Your task to perform on an android device: turn off data saver in the chrome app Image 0: 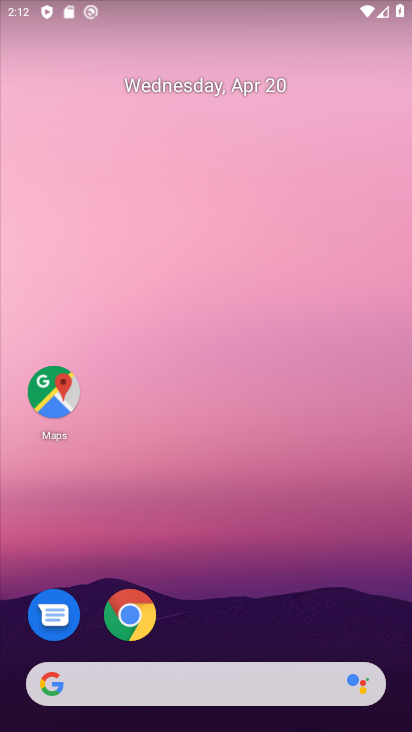
Step 0: click (126, 625)
Your task to perform on an android device: turn off data saver in the chrome app Image 1: 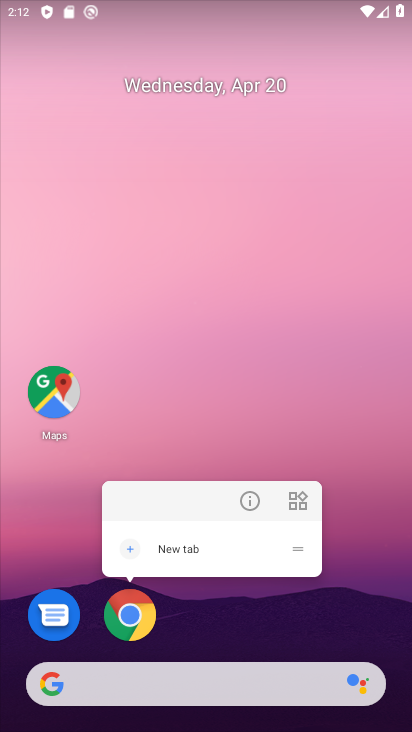
Step 1: click (127, 624)
Your task to perform on an android device: turn off data saver in the chrome app Image 2: 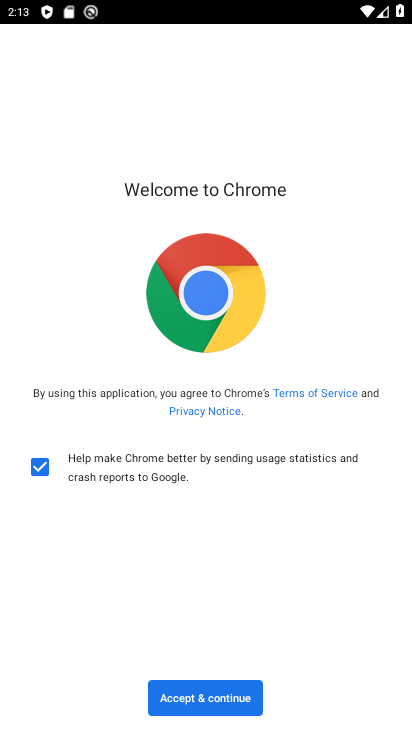
Step 2: click (208, 696)
Your task to perform on an android device: turn off data saver in the chrome app Image 3: 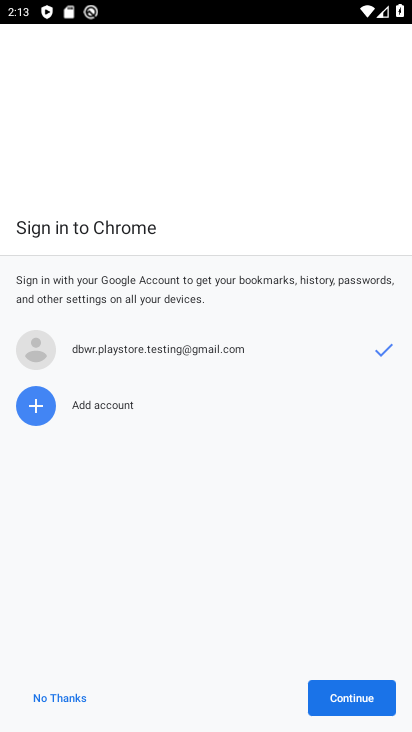
Step 3: click (400, 704)
Your task to perform on an android device: turn off data saver in the chrome app Image 4: 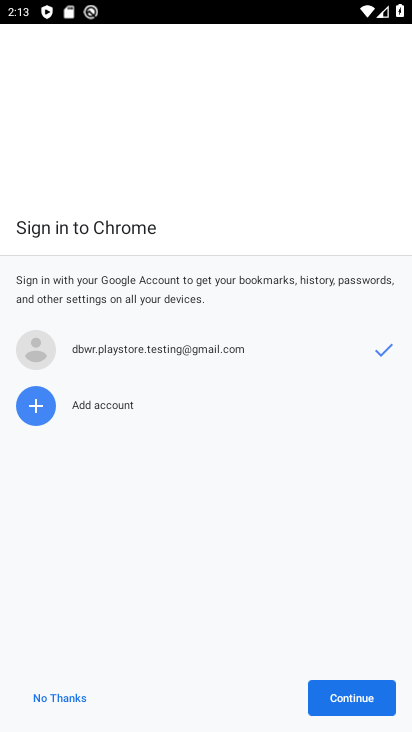
Step 4: click (376, 700)
Your task to perform on an android device: turn off data saver in the chrome app Image 5: 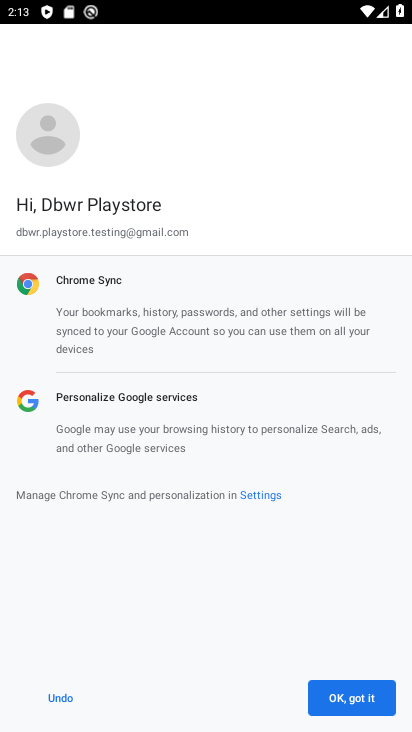
Step 5: click (359, 701)
Your task to perform on an android device: turn off data saver in the chrome app Image 6: 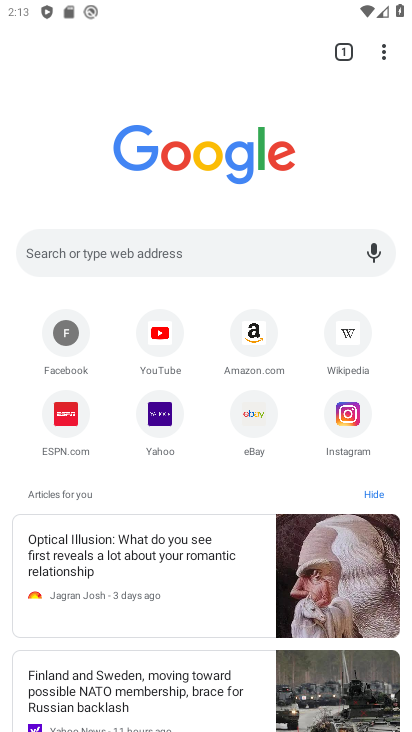
Step 6: drag from (388, 51) to (288, 451)
Your task to perform on an android device: turn off data saver in the chrome app Image 7: 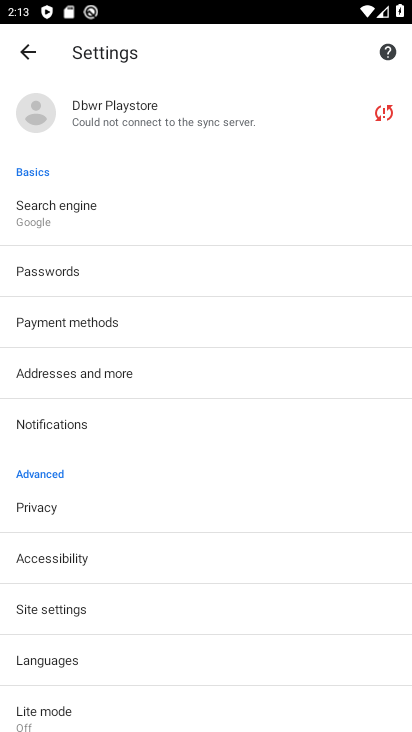
Step 7: drag from (148, 624) to (235, 315)
Your task to perform on an android device: turn off data saver in the chrome app Image 8: 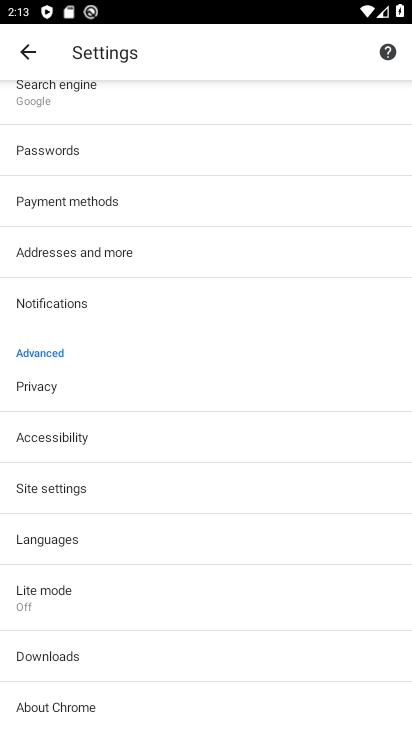
Step 8: click (95, 593)
Your task to perform on an android device: turn off data saver in the chrome app Image 9: 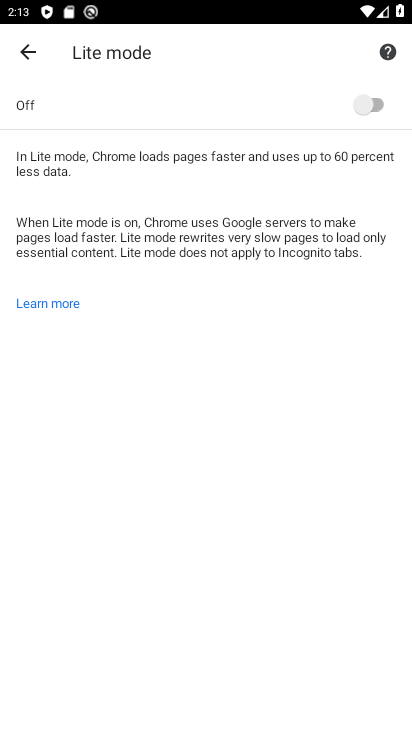
Step 9: task complete